Your task to perform on an android device: Open Maps and search for coffee Image 0: 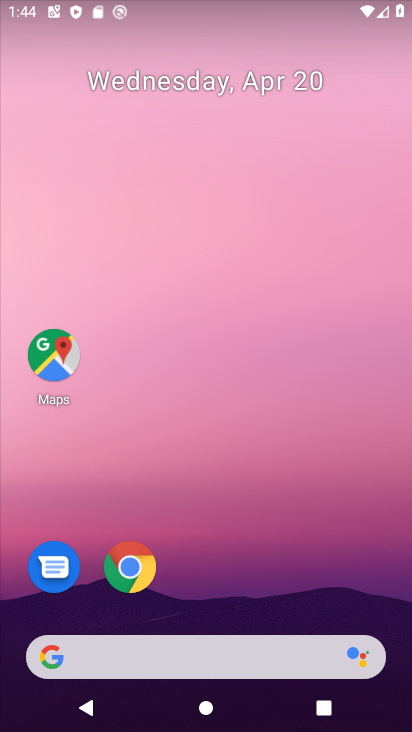
Step 0: click (45, 373)
Your task to perform on an android device: Open Maps and search for coffee Image 1: 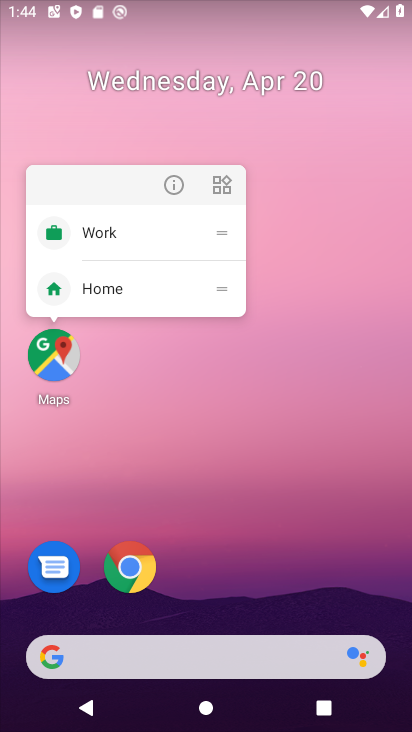
Step 1: click (59, 366)
Your task to perform on an android device: Open Maps and search for coffee Image 2: 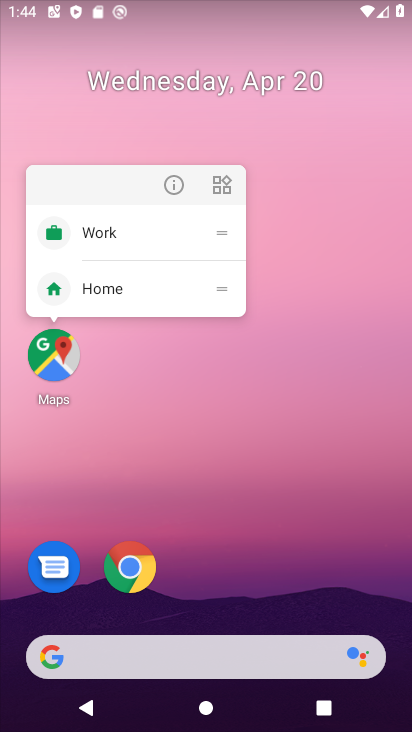
Step 2: click (40, 361)
Your task to perform on an android device: Open Maps and search for coffee Image 3: 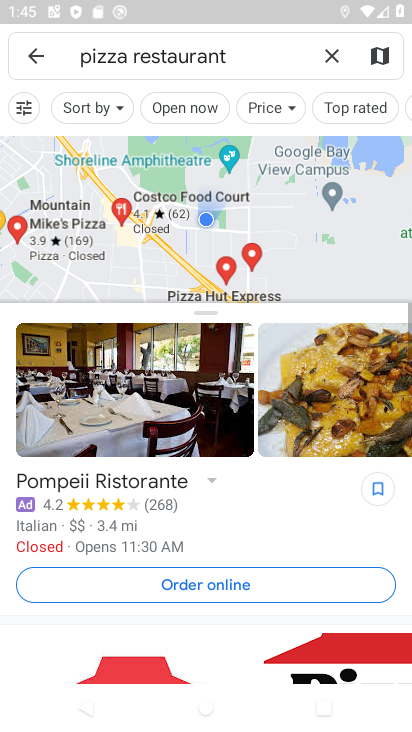
Step 3: click (333, 52)
Your task to perform on an android device: Open Maps and search for coffee Image 4: 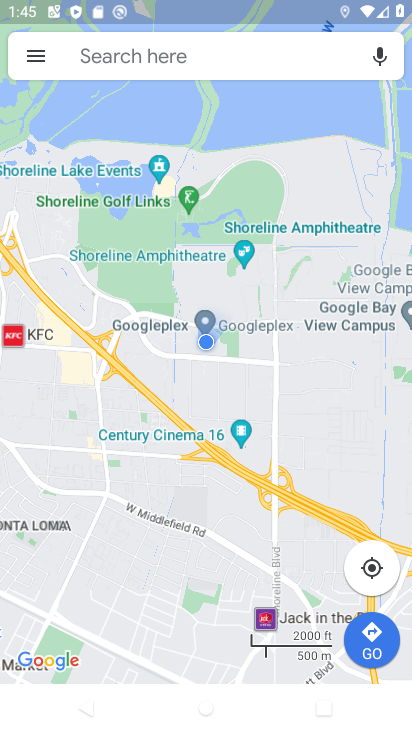
Step 4: click (239, 53)
Your task to perform on an android device: Open Maps and search for coffee Image 5: 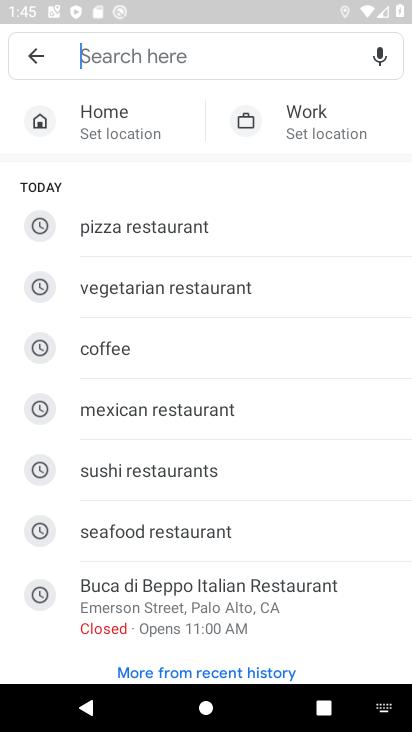
Step 5: type "coffee"
Your task to perform on an android device: Open Maps and search for coffee Image 6: 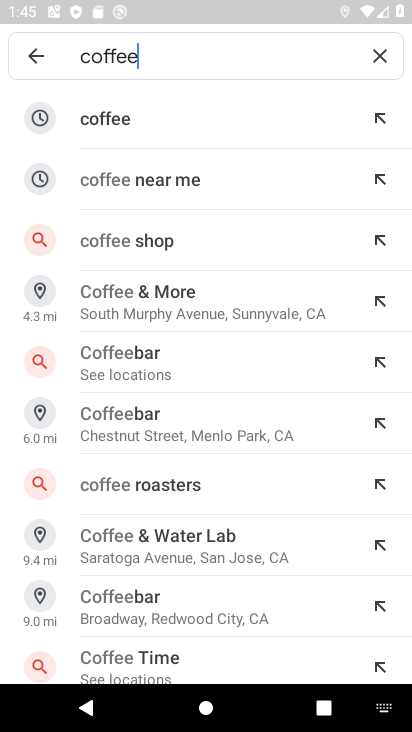
Step 6: click (118, 121)
Your task to perform on an android device: Open Maps and search for coffee Image 7: 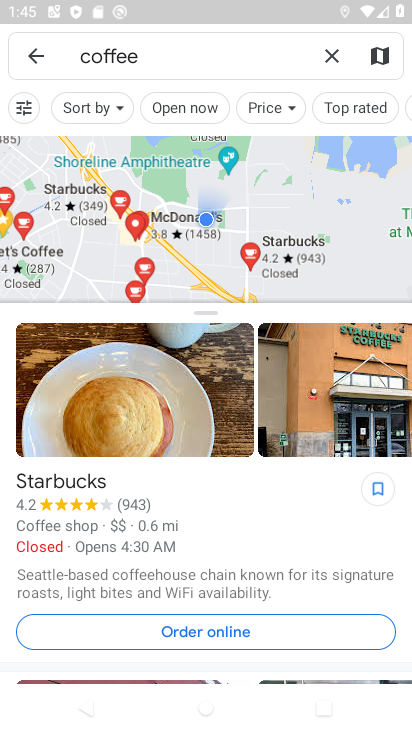
Step 7: task complete